Your task to perform on an android device: move an email to a new category in the gmail app Image 0: 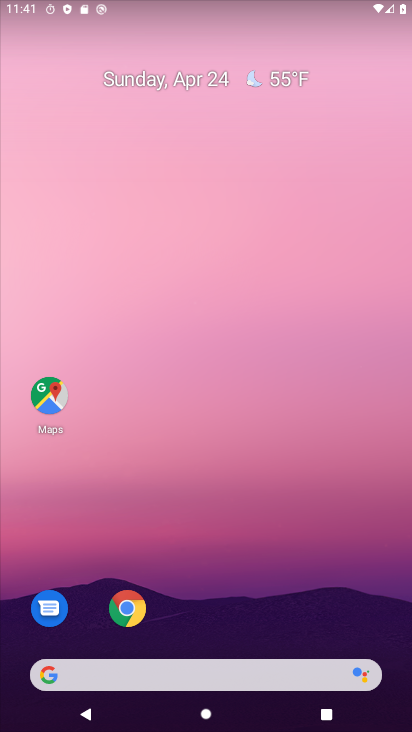
Step 0: drag from (192, 621) to (292, 241)
Your task to perform on an android device: move an email to a new category in the gmail app Image 1: 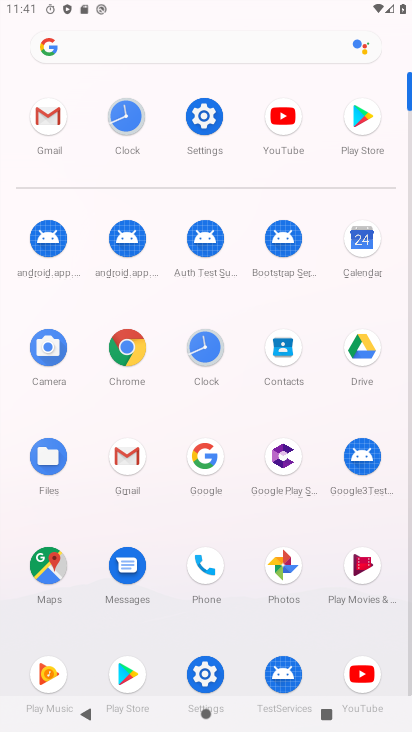
Step 1: click (44, 121)
Your task to perform on an android device: move an email to a new category in the gmail app Image 2: 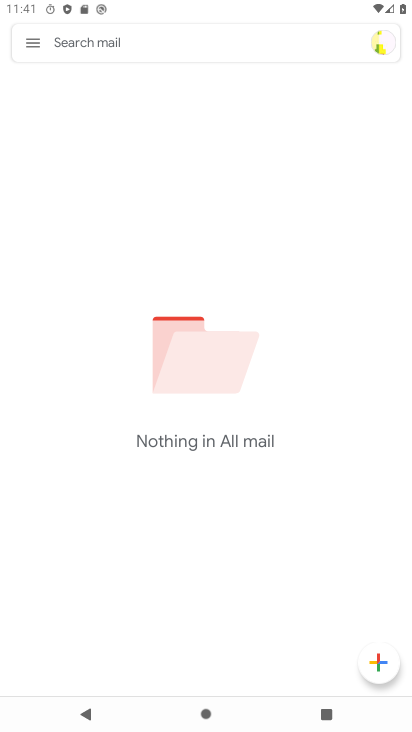
Step 2: task complete